Your task to perform on an android device: snooze an email in the gmail app Image 0: 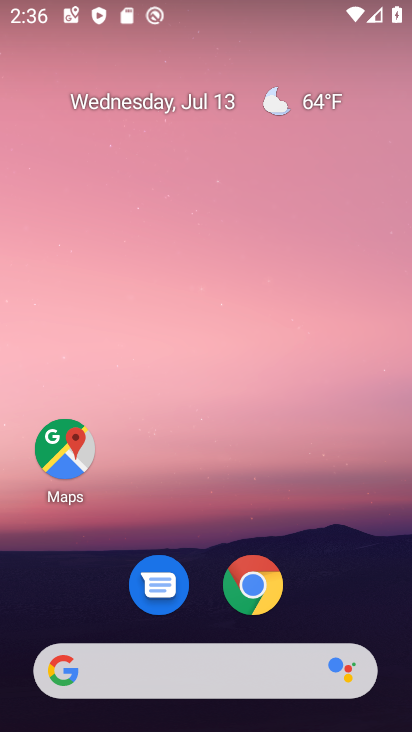
Step 0: drag from (214, 652) to (321, 187)
Your task to perform on an android device: snooze an email in the gmail app Image 1: 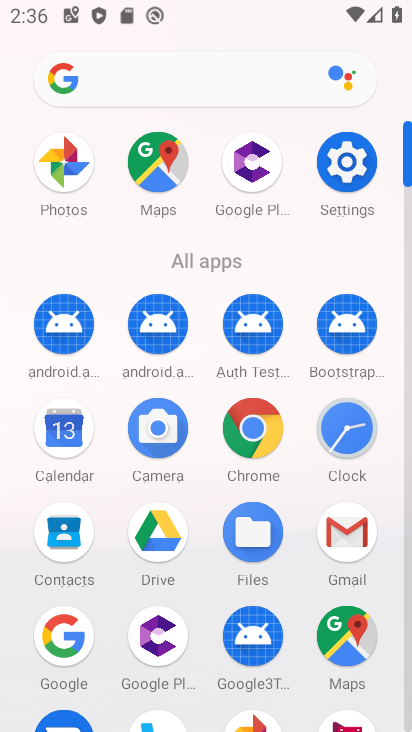
Step 1: click (340, 546)
Your task to perform on an android device: snooze an email in the gmail app Image 2: 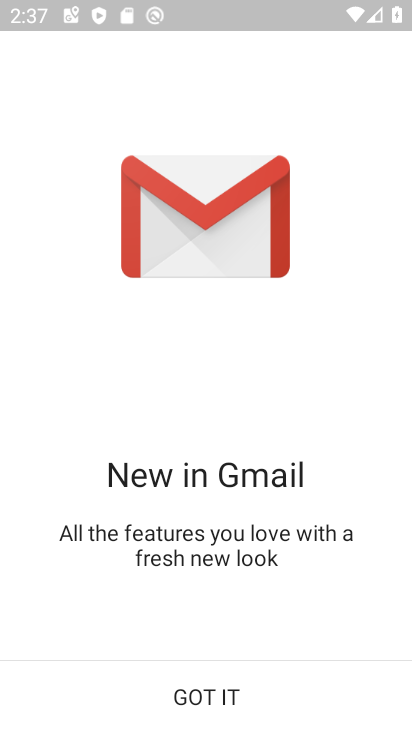
Step 2: click (220, 688)
Your task to perform on an android device: snooze an email in the gmail app Image 3: 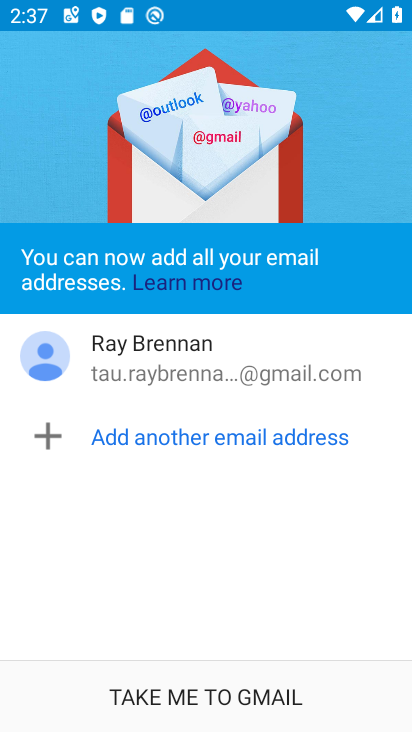
Step 3: click (220, 689)
Your task to perform on an android device: snooze an email in the gmail app Image 4: 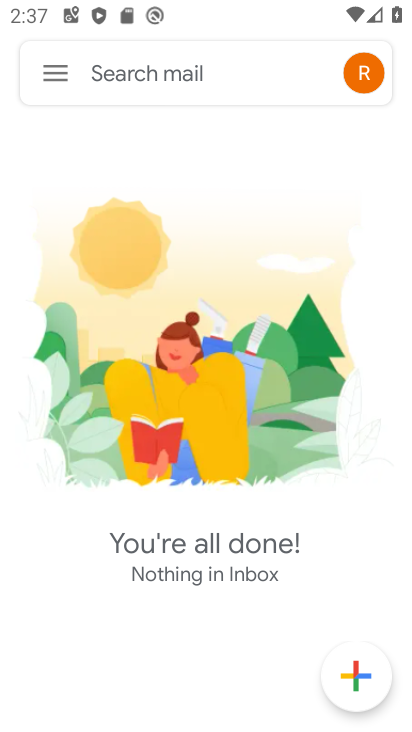
Step 4: task complete